Your task to perform on an android device: check battery use Image 0: 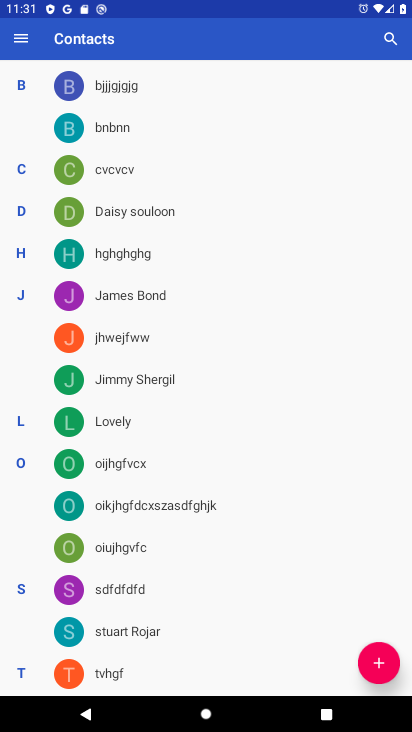
Step 0: press home button
Your task to perform on an android device: check battery use Image 1: 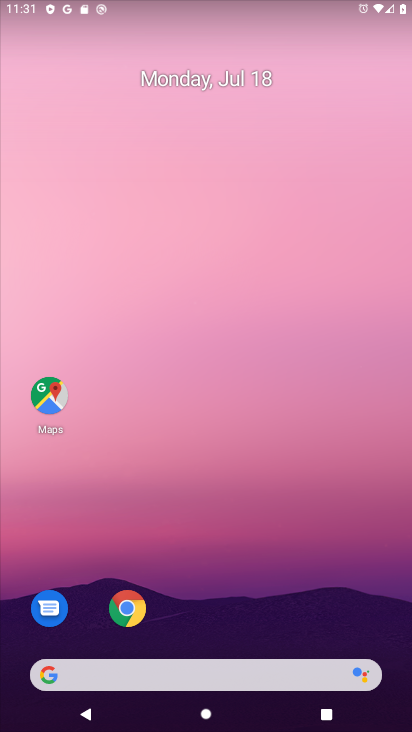
Step 1: drag from (228, 574) to (273, 46)
Your task to perform on an android device: check battery use Image 2: 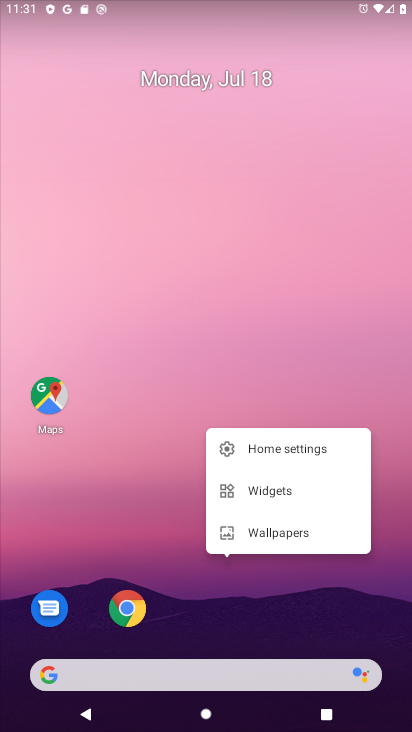
Step 2: click (272, 298)
Your task to perform on an android device: check battery use Image 3: 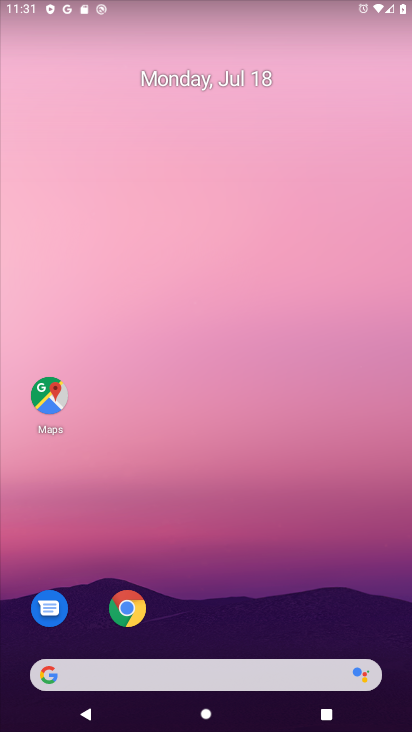
Step 3: drag from (204, 645) to (258, 135)
Your task to perform on an android device: check battery use Image 4: 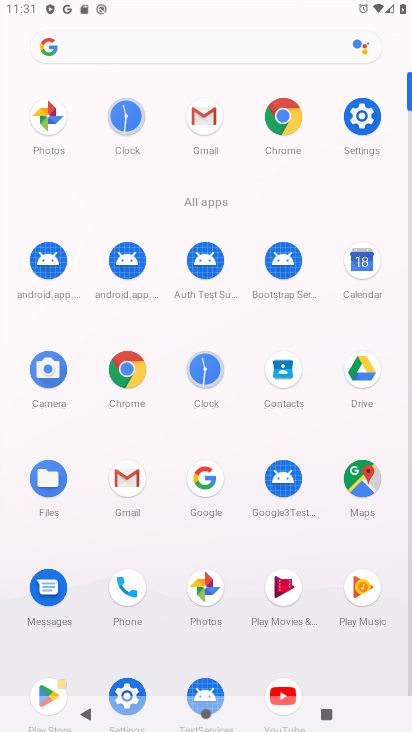
Step 4: click (363, 108)
Your task to perform on an android device: check battery use Image 5: 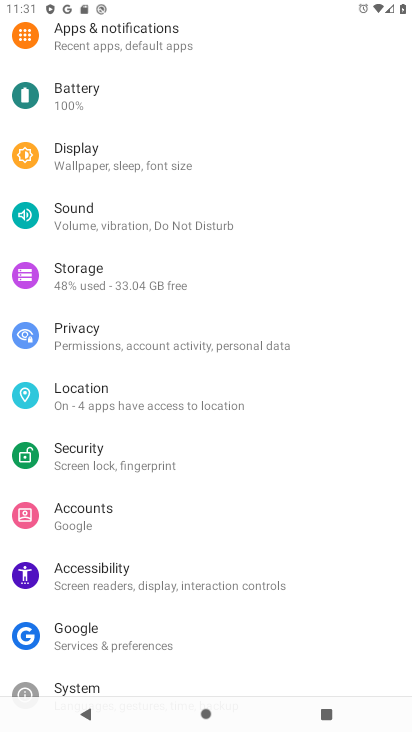
Step 5: click (119, 97)
Your task to perform on an android device: check battery use Image 6: 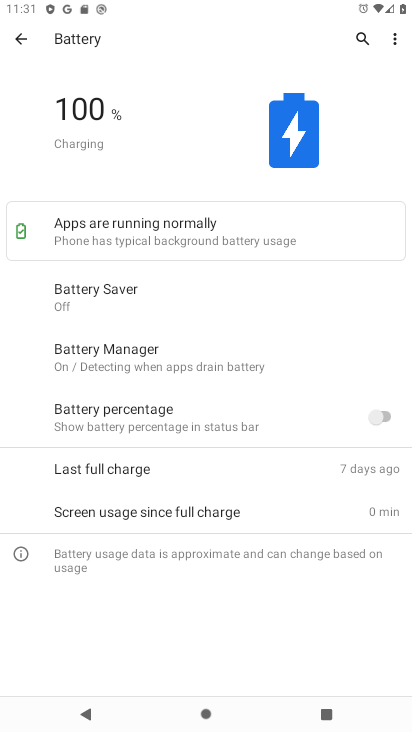
Step 6: click (397, 35)
Your task to perform on an android device: check battery use Image 7: 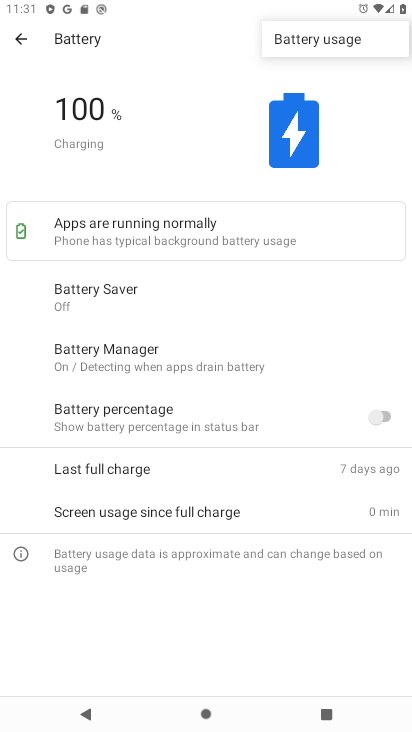
Step 7: click (334, 45)
Your task to perform on an android device: check battery use Image 8: 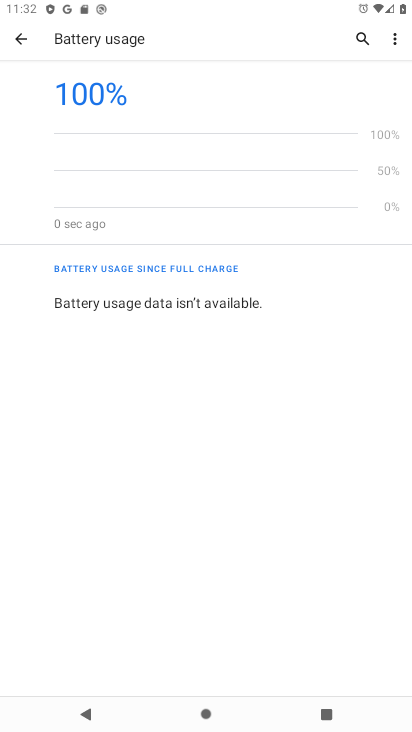
Step 8: task complete